Your task to perform on an android device: Open the phone app and click the voicemail tab. Image 0: 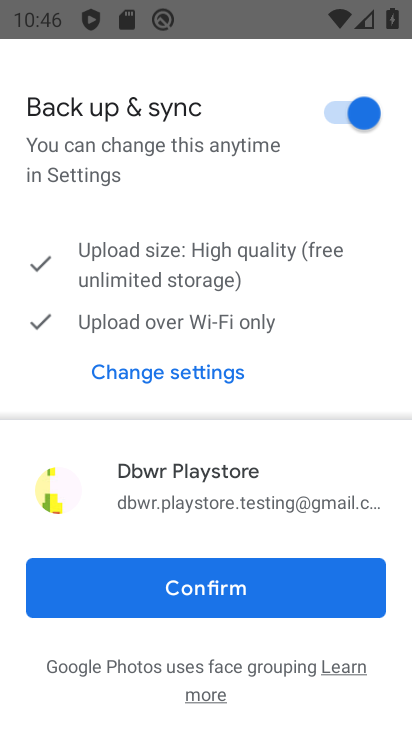
Step 0: click (300, 592)
Your task to perform on an android device: Open the phone app and click the voicemail tab. Image 1: 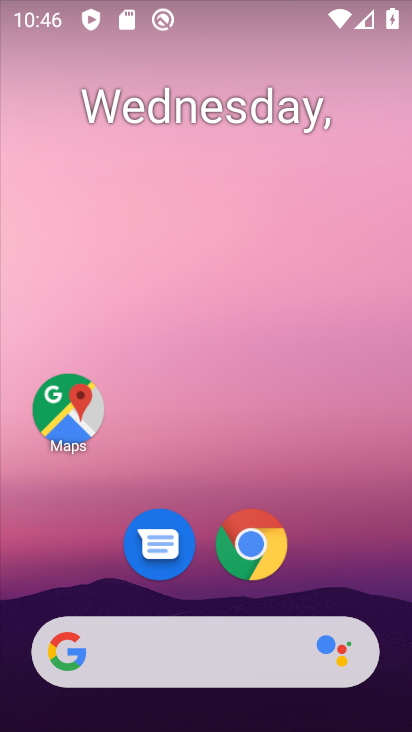
Step 1: drag from (310, 563) to (361, 91)
Your task to perform on an android device: Open the phone app and click the voicemail tab. Image 2: 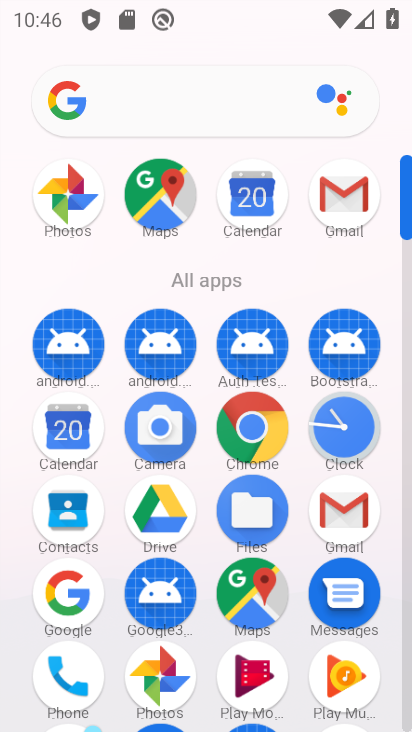
Step 2: click (75, 682)
Your task to perform on an android device: Open the phone app and click the voicemail tab. Image 3: 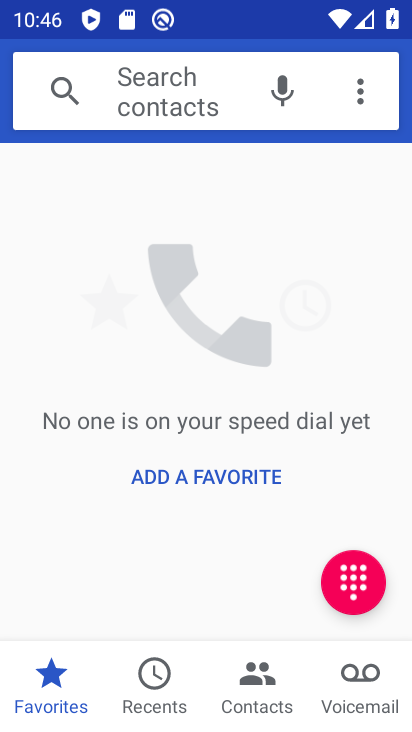
Step 3: click (386, 683)
Your task to perform on an android device: Open the phone app and click the voicemail tab. Image 4: 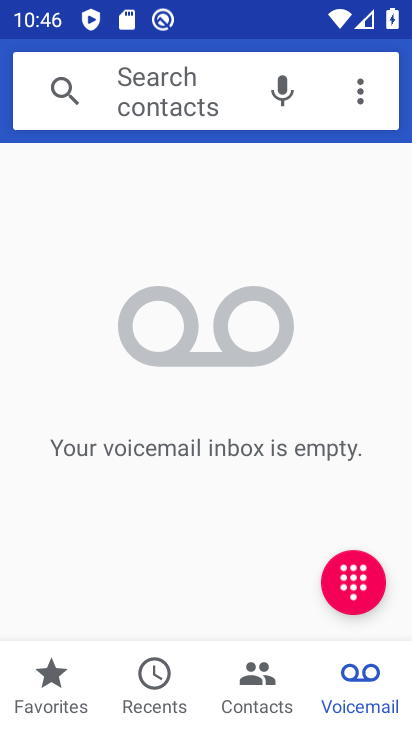
Step 4: task complete